Your task to perform on an android device: Go to privacy settings Image 0: 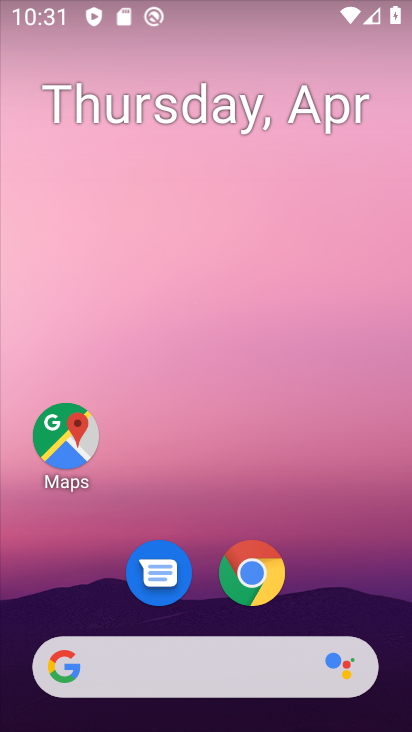
Step 0: drag from (300, 586) to (261, 89)
Your task to perform on an android device: Go to privacy settings Image 1: 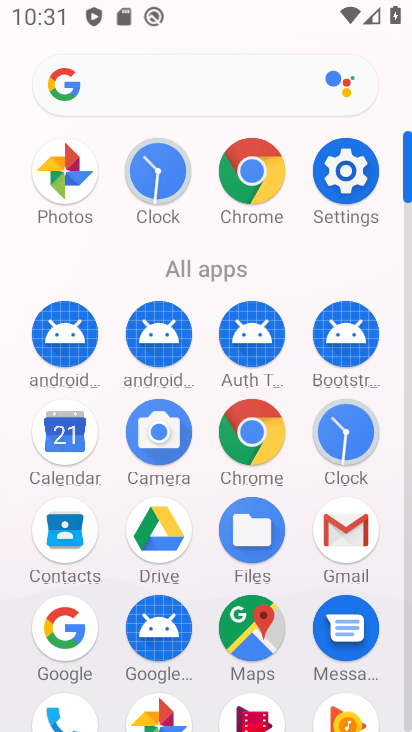
Step 1: click (349, 155)
Your task to perform on an android device: Go to privacy settings Image 2: 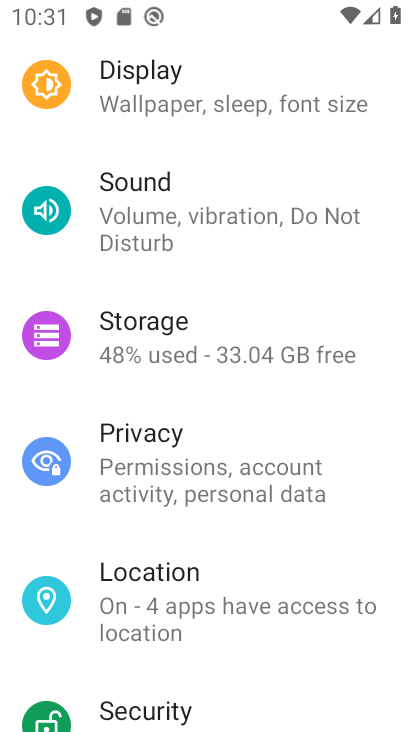
Step 2: click (228, 443)
Your task to perform on an android device: Go to privacy settings Image 3: 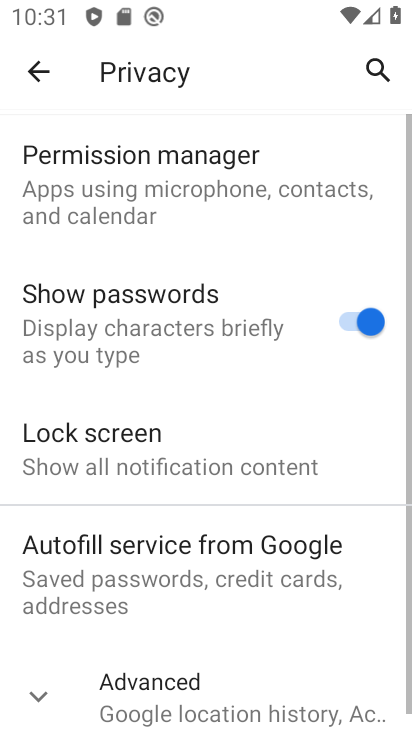
Step 3: task complete